Your task to perform on an android device: toggle priority inbox in the gmail app Image 0: 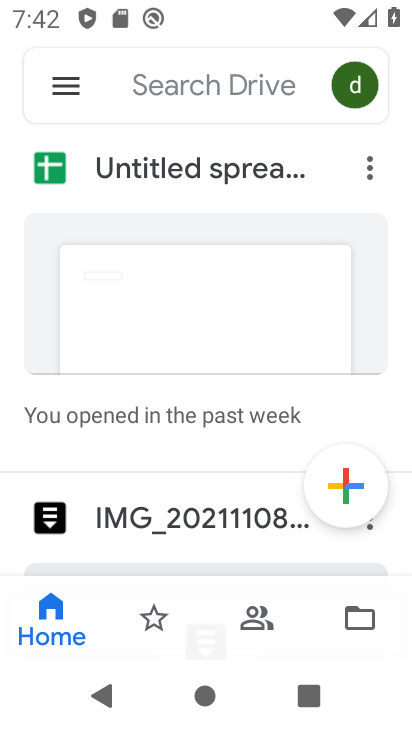
Step 0: press home button
Your task to perform on an android device: toggle priority inbox in the gmail app Image 1: 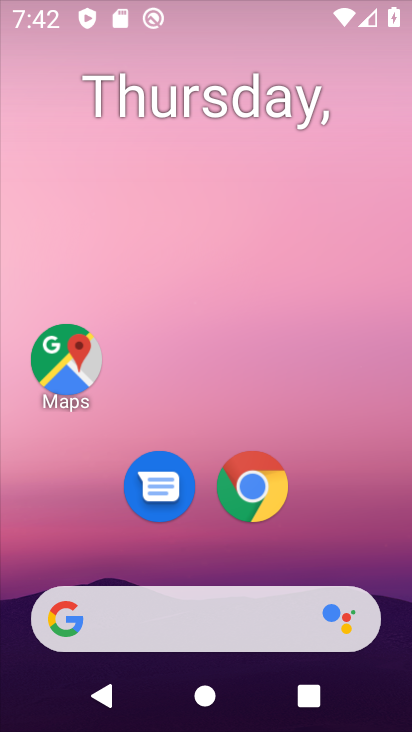
Step 1: drag from (164, 683) to (227, 91)
Your task to perform on an android device: toggle priority inbox in the gmail app Image 2: 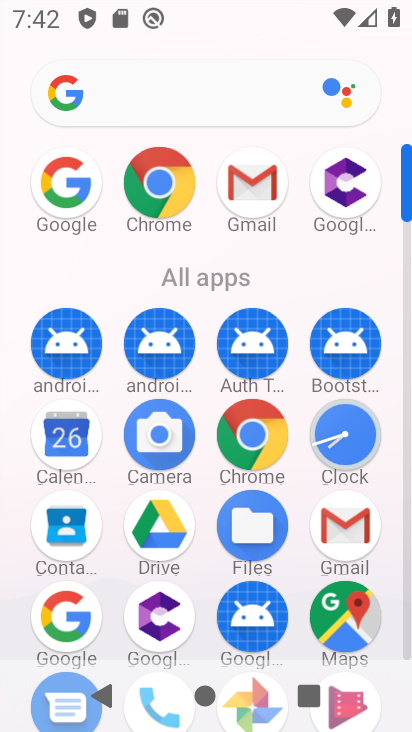
Step 2: click (338, 555)
Your task to perform on an android device: toggle priority inbox in the gmail app Image 3: 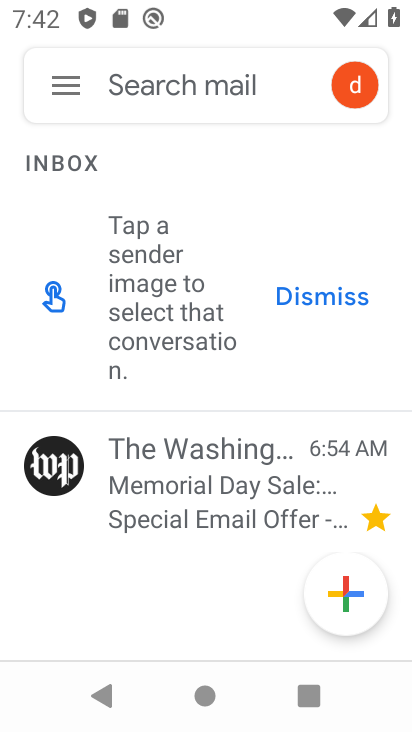
Step 3: click (68, 85)
Your task to perform on an android device: toggle priority inbox in the gmail app Image 4: 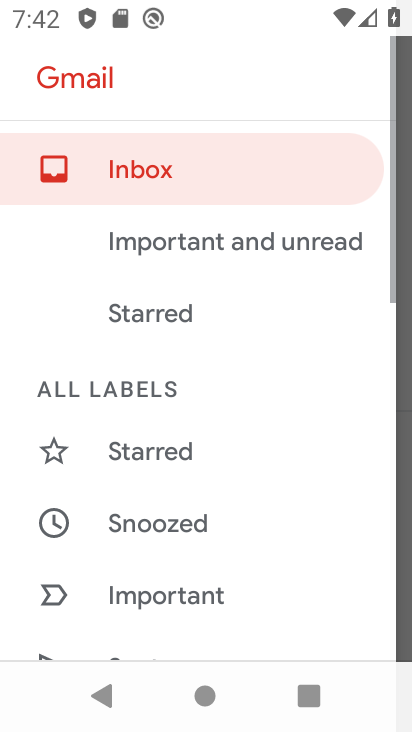
Step 4: drag from (142, 487) to (226, 106)
Your task to perform on an android device: toggle priority inbox in the gmail app Image 5: 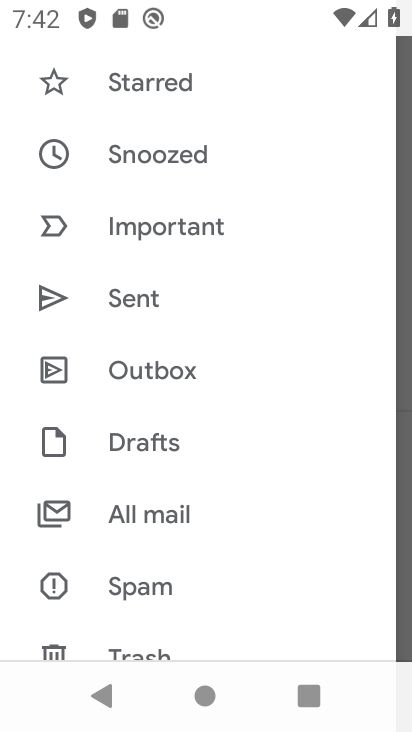
Step 5: drag from (157, 552) to (209, 281)
Your task to perform on an android device: toggle priority inbox in the gmail app Image 6: 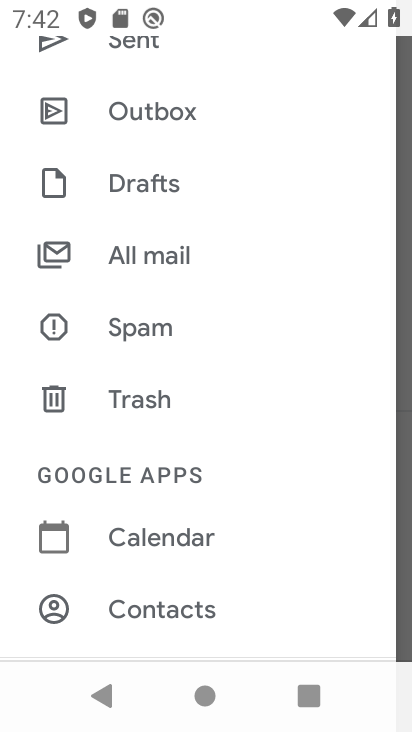
Step 6: drag from (140, 524) to (195, 243)
Your task to perform on an android device: toggle priority inbox in the gmail app Image 7: 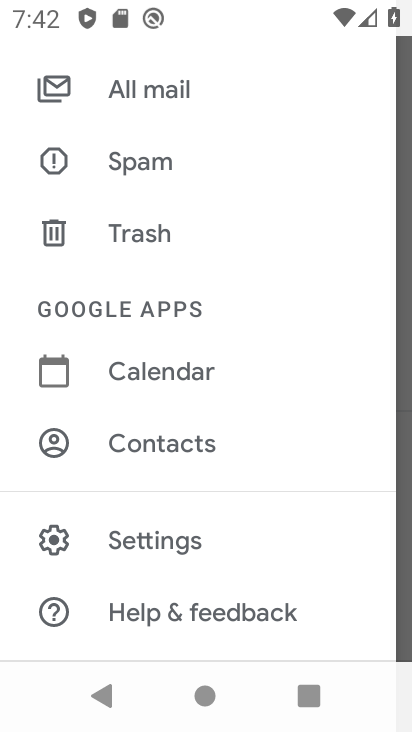
Step 7: click (157, 543)
Your task to perform on an android device: toggle priority inbox in the gmail app Image 8: 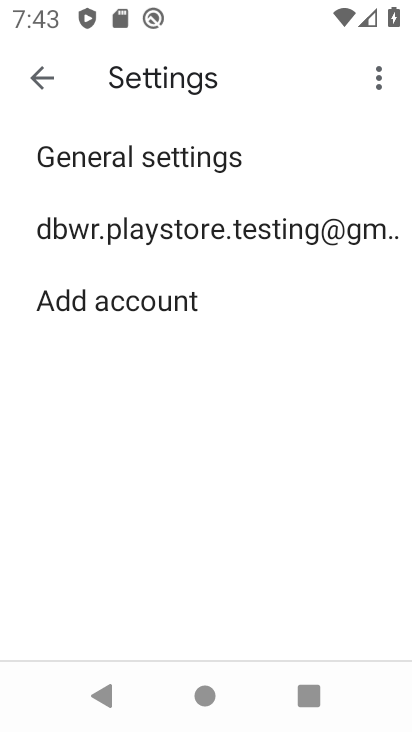
Step 8: click (270, 226)
Your task to perform on an android device: toggle priority inbox in the gmail app Image 9: 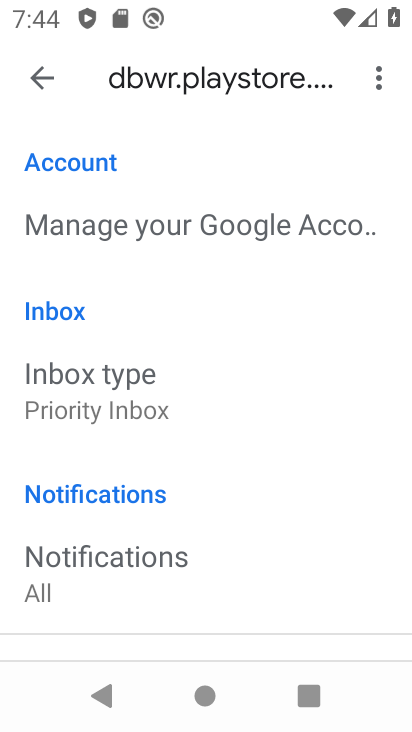
Step 9: click (137, 419)
Your task to perform on an android device: toggle priority inbox in the gmail app Image 10: 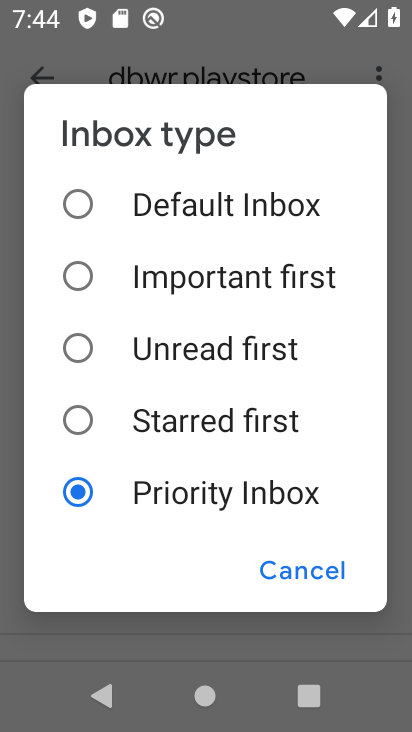
Step 10: click (108, 209)
Your task to perform on an android device: toggle priority inbox in the gmail app Image 11: 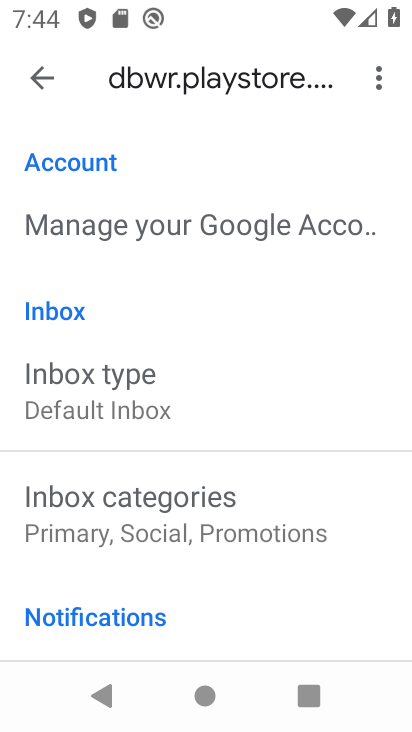
Step 11: task complete